Your task to perform on an android device: Add macbook pro 13 inch to the cart on ebay.com, then select checkout. Image 0: 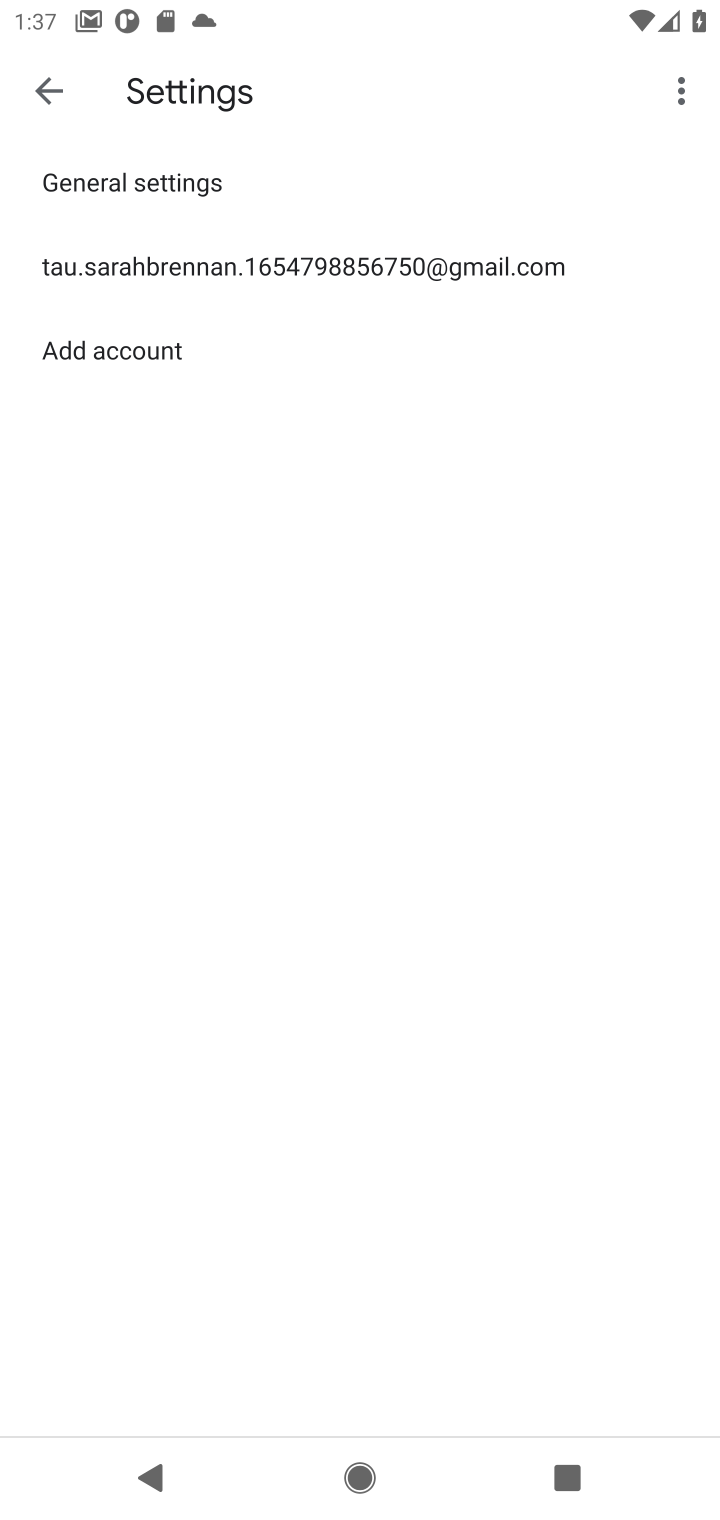
Step 0: press home button
Your task to perform on an android device: Add macbook pro 13 inch to the cart on ebay.com, then select checkout. Image 1: 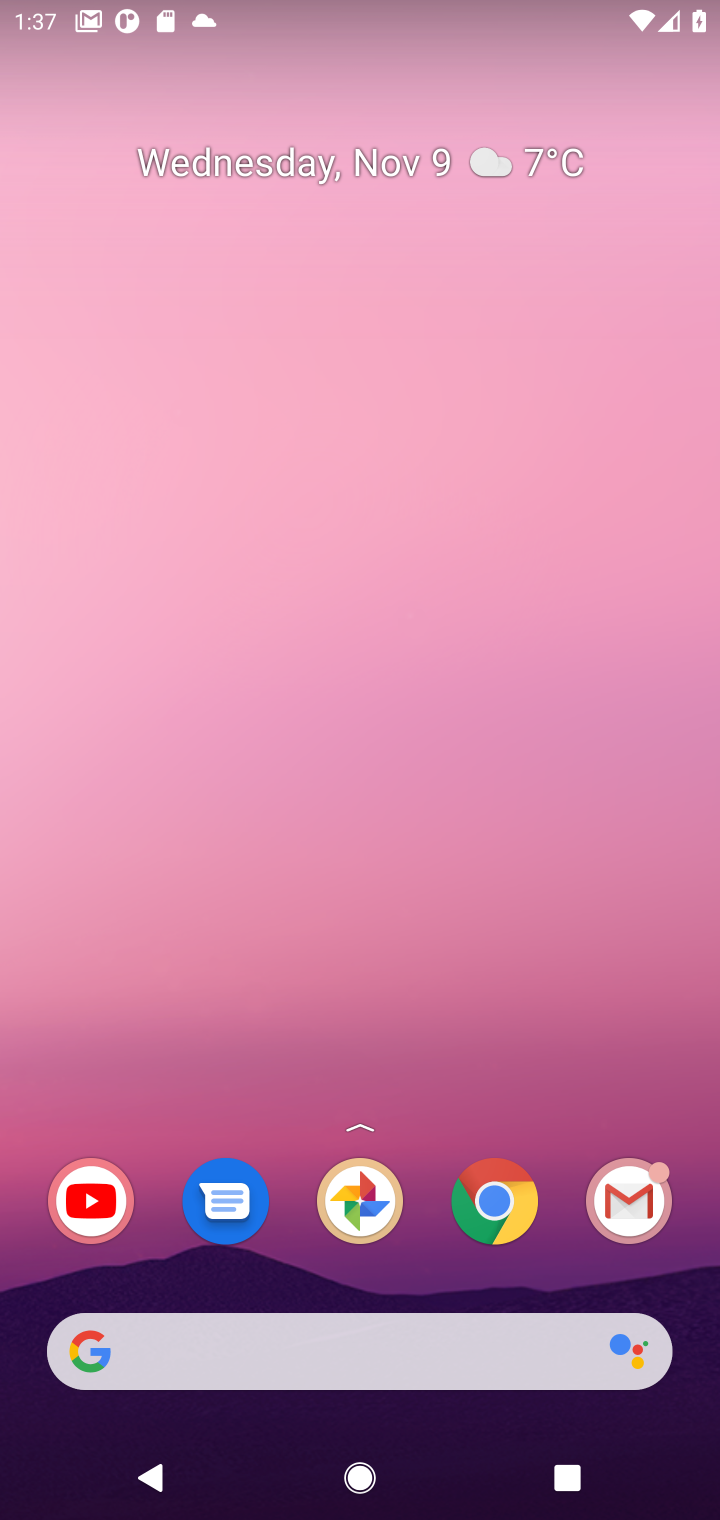
Step 1: click (282, 1338)
Your task to perform on an android device: Add macbook pro 13 inch to the cart on ebay.com, then select checkout. Image 2: 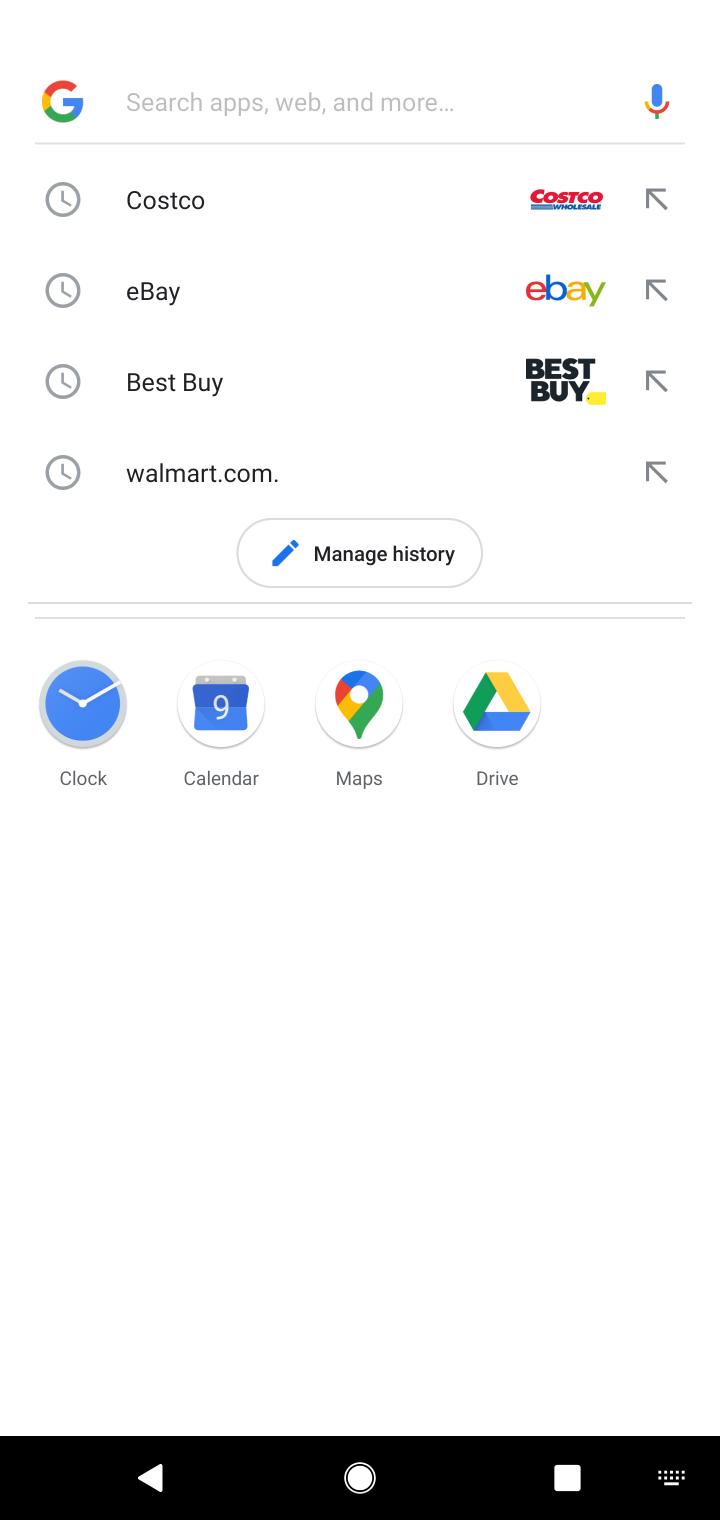
Step 2: click (310, 314)
Your task to perform on an android device: Add macbook pro 13 inch to the cart on ebay.com, then select checkout. Image 3: 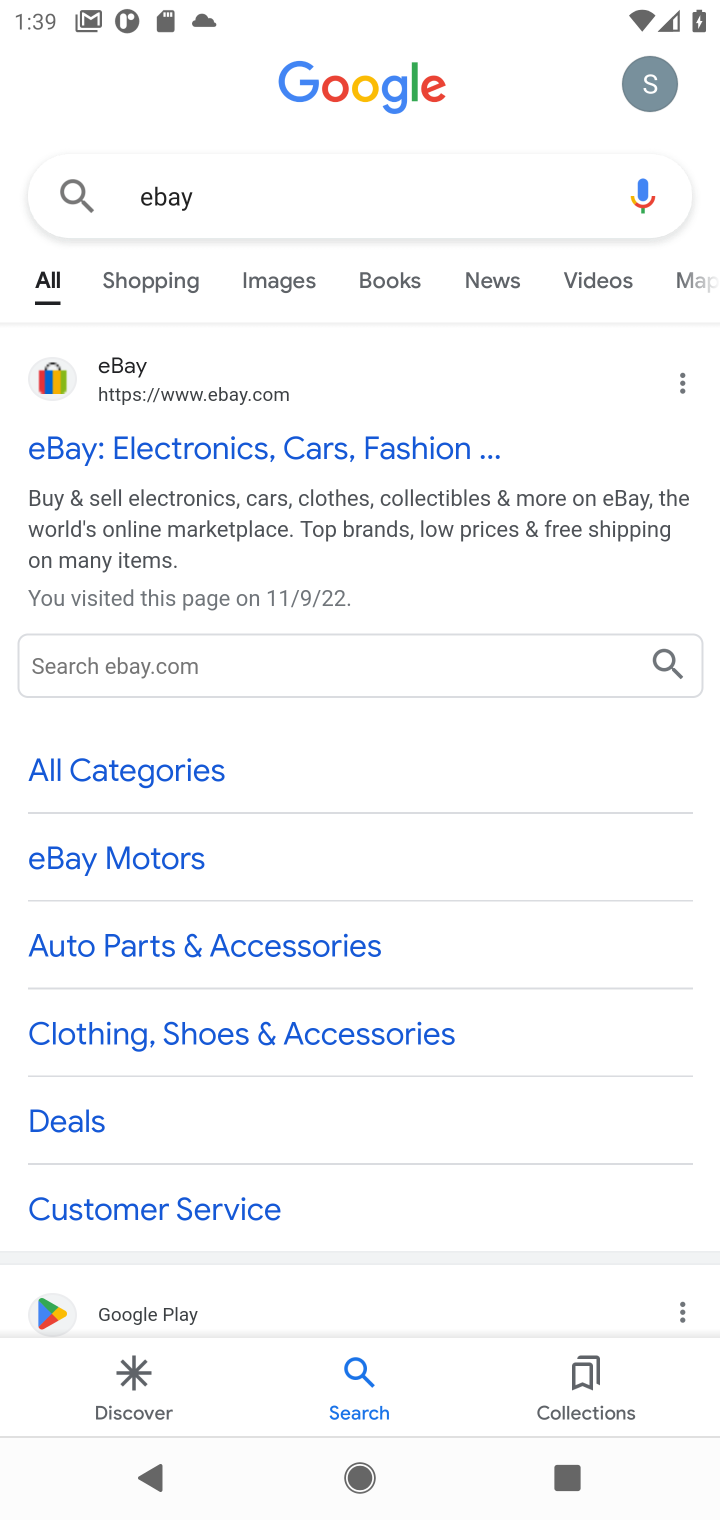
Step 3: click (110, 383)
Your task to perform on an android device: Add macbook pro 13 inch to the cart on ebay.com, then select checkout. Image 4: 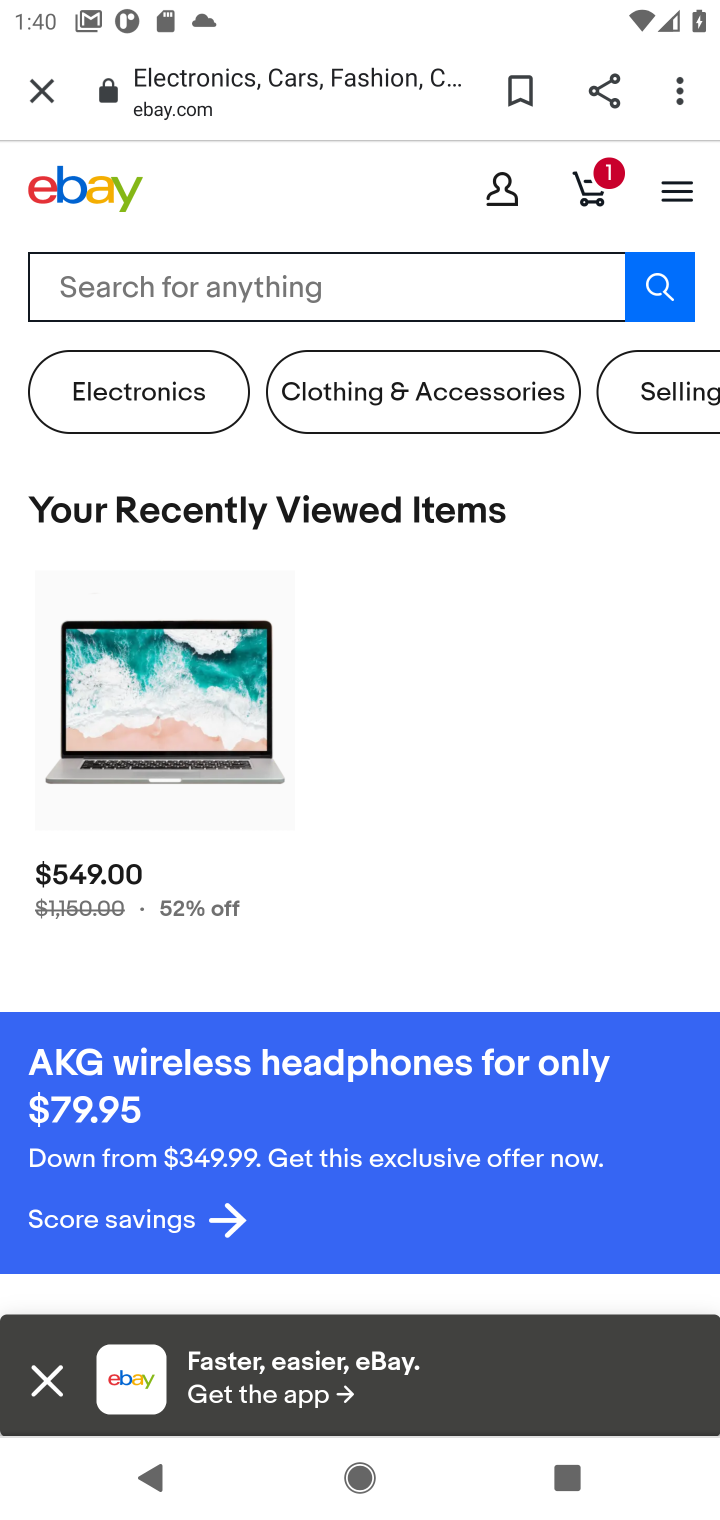
Step 4: click (208, 290)
Your task to perform on an android device: Add macbook pro 13 inch to the cart on ebay.com, then select checkout. Image 5: 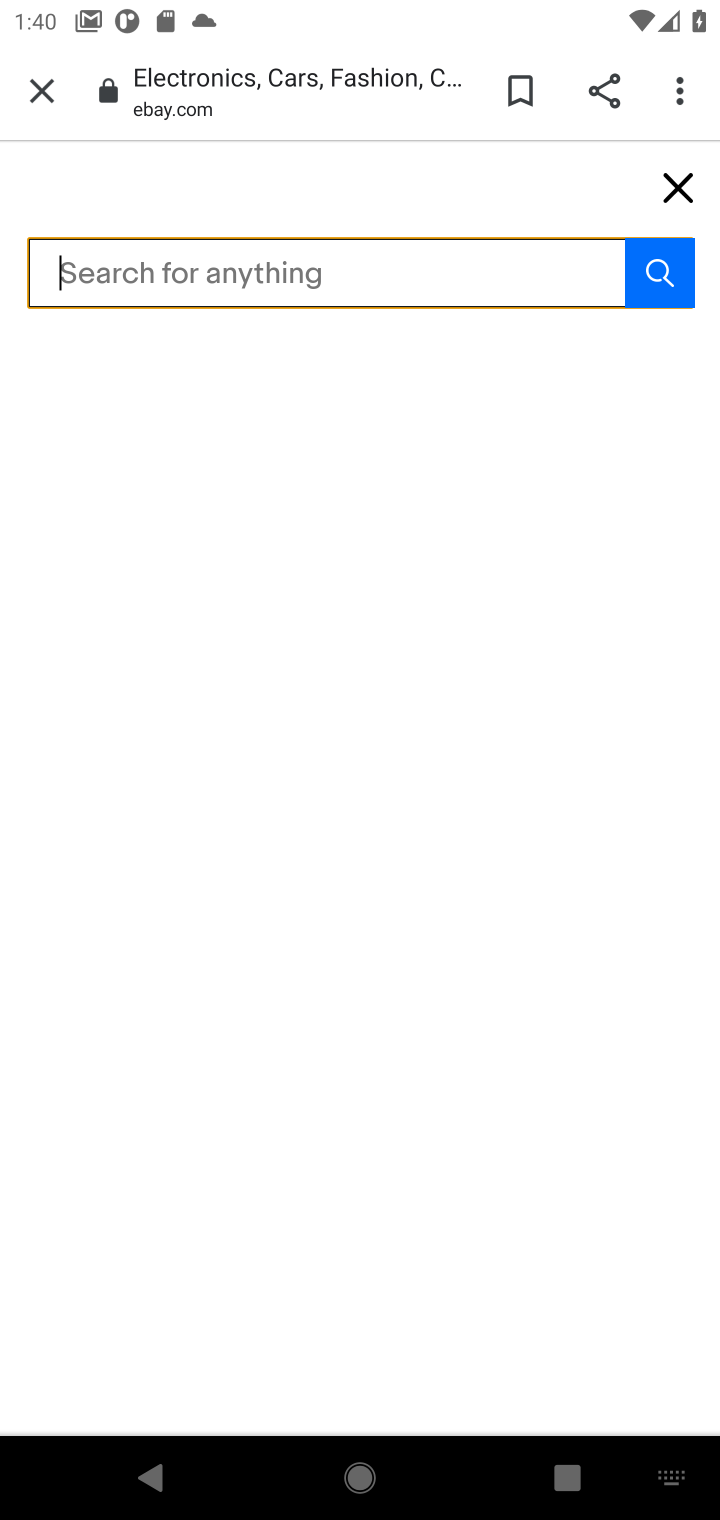
Step 5: type "macbook pro 13 inch"
Your task to perform on an android device: Add macbook pro 13 inch to the cart on ebay.com, then select checkout. Image 6: 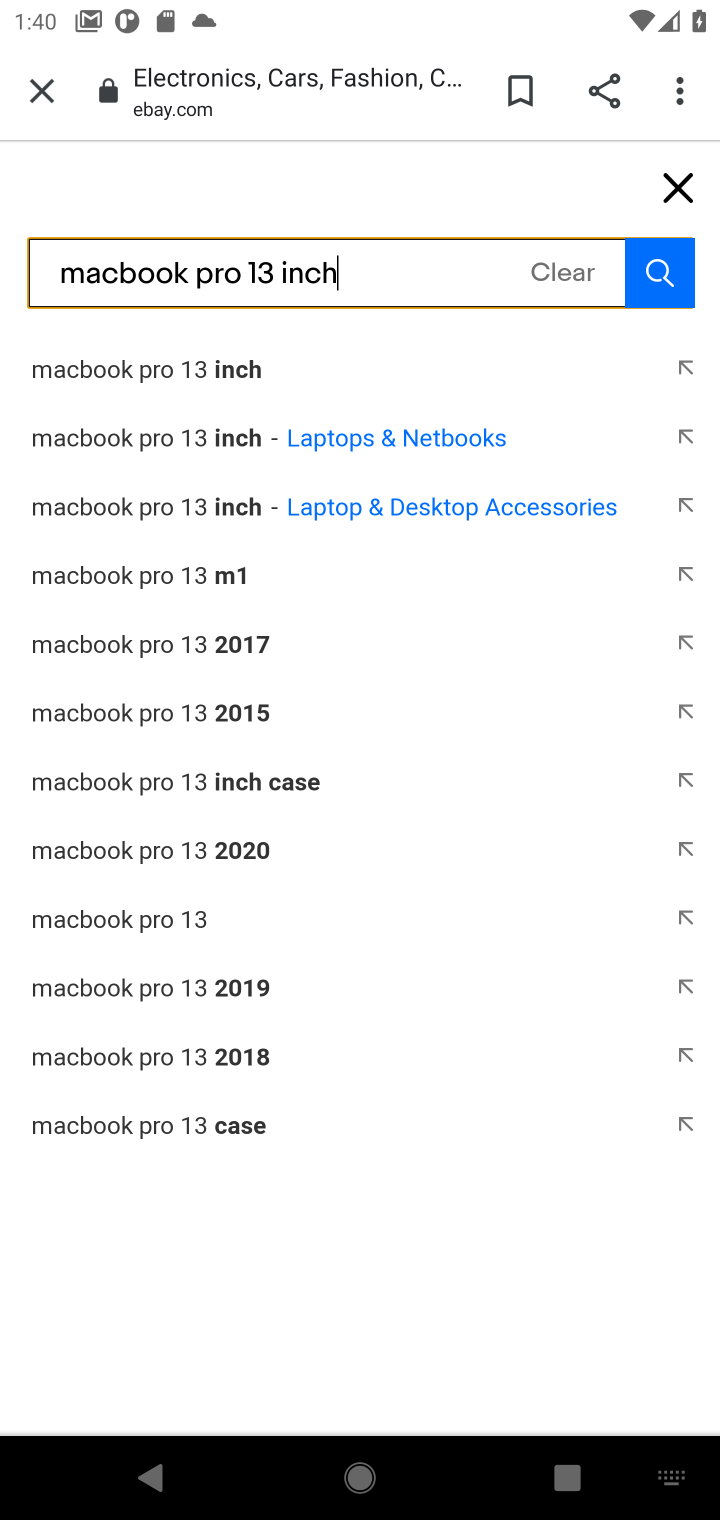
Step 6: click (191, 438)
Your task to perform on an android device: Add macbook pro 13 inch to the cart on ebay.com, then select checkout. Image 7: 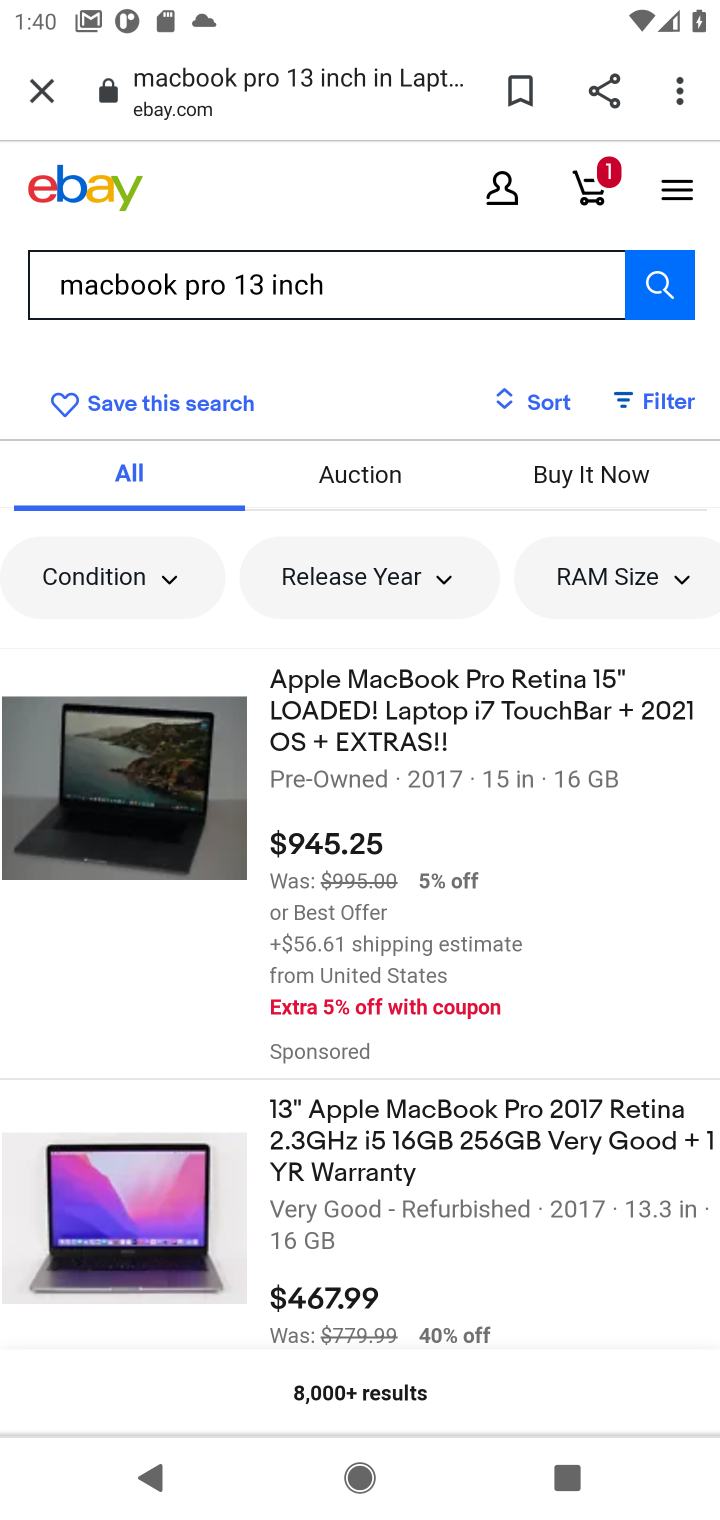
Step 7: click (243, 740)
Your task to perform on an android device: Add macbook pro 13 inch to the cart on ebay.com, then select checkout. Image 8: 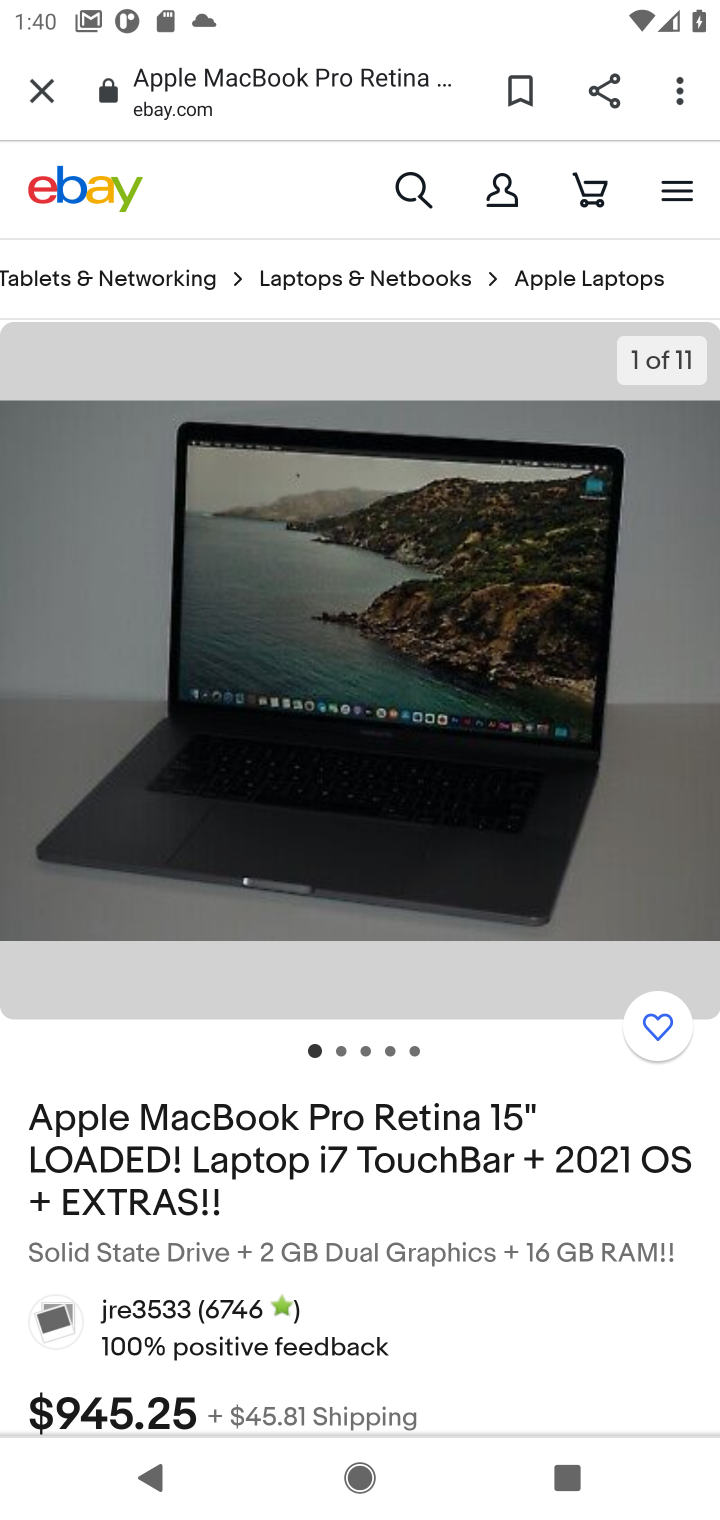
Step 8: click (381, 976)
Your task to perform on an android device: Add macbook pro 13 inch to the cart on ebay.com, then select checkout. Image 9: 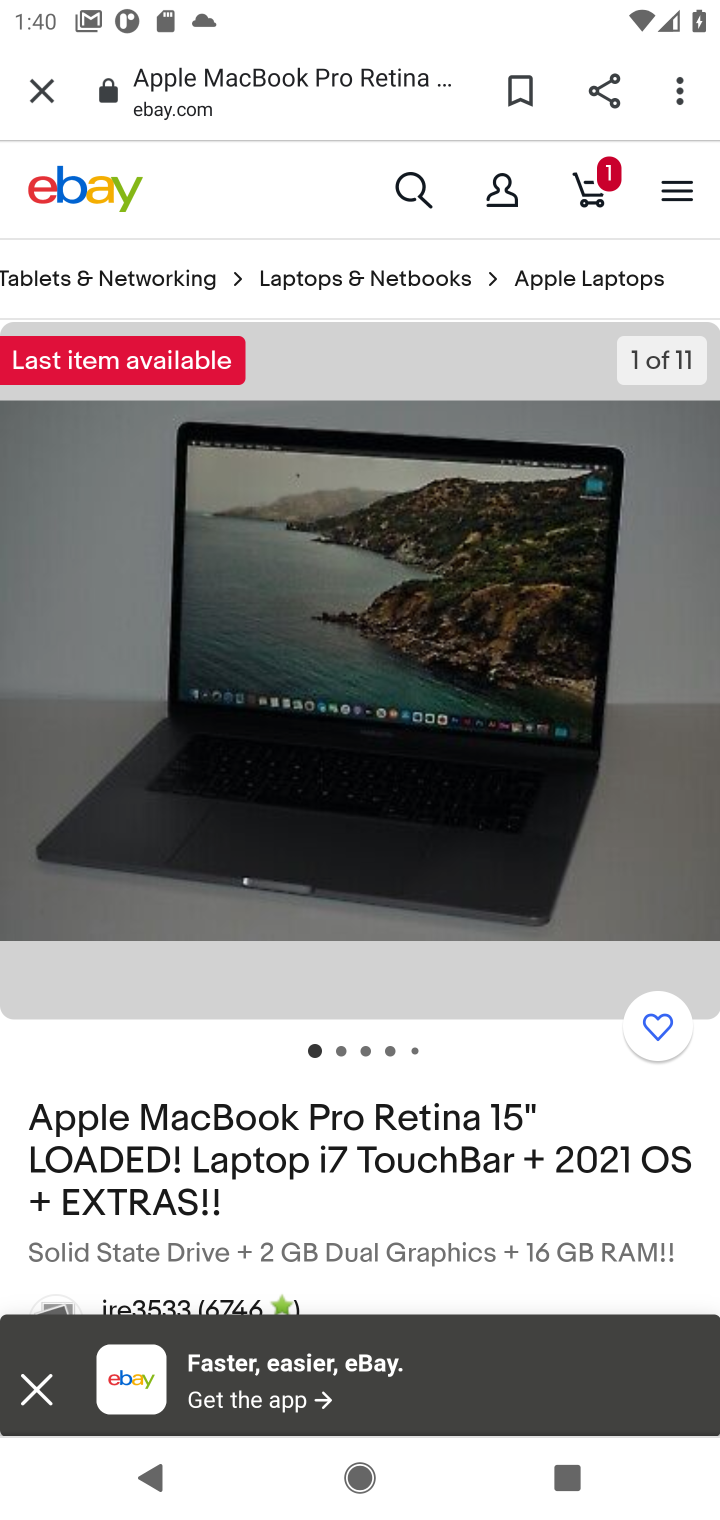
Step 9: drag from (362, 1200) to (391, 871)
Your task to perform on an android device: Add macbook pro 13 inch to the cart on ebay.com, then select checkout. Image 10: 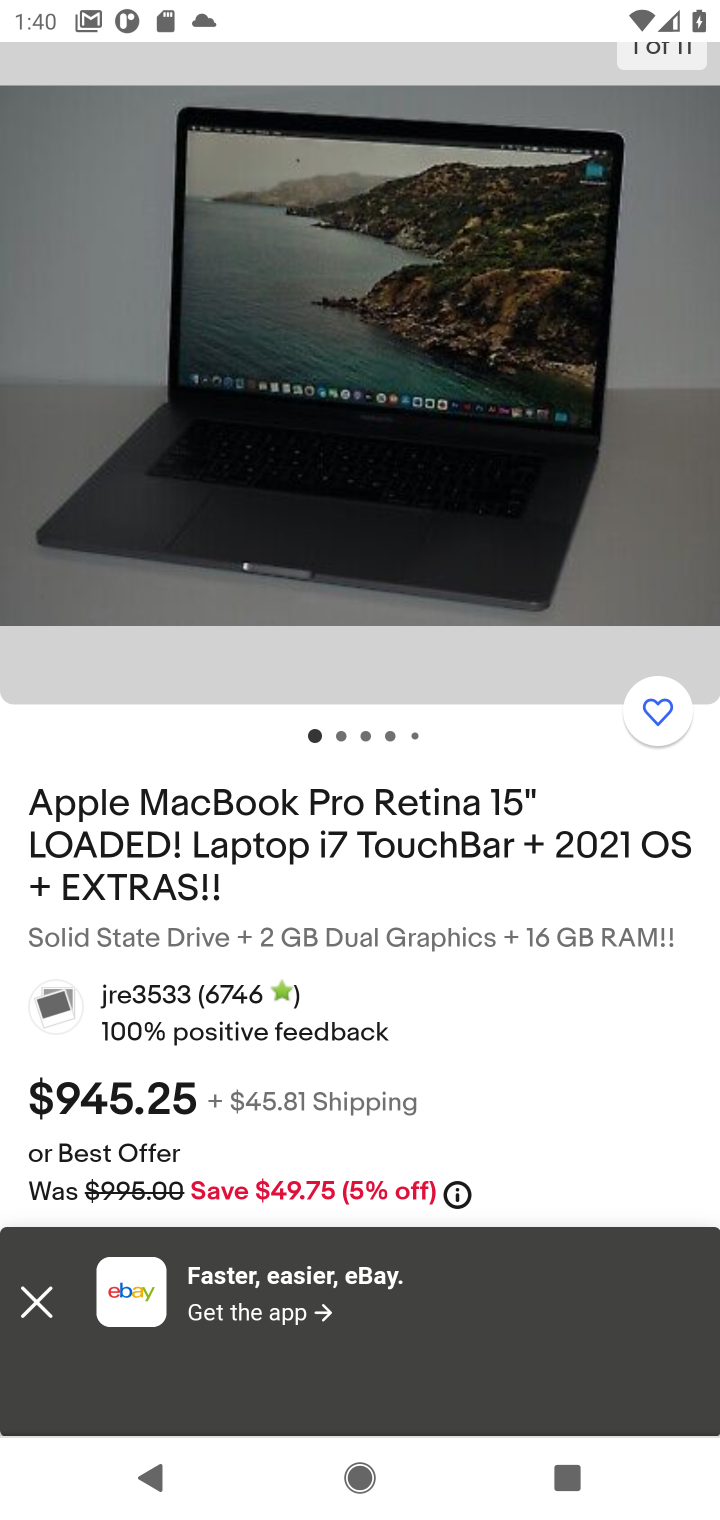
Step 10: click (462, 918)
Your task to perform on an android device: Add macbook pro 13 inch to the cart on ebay.com, then select checkout. Image 11: 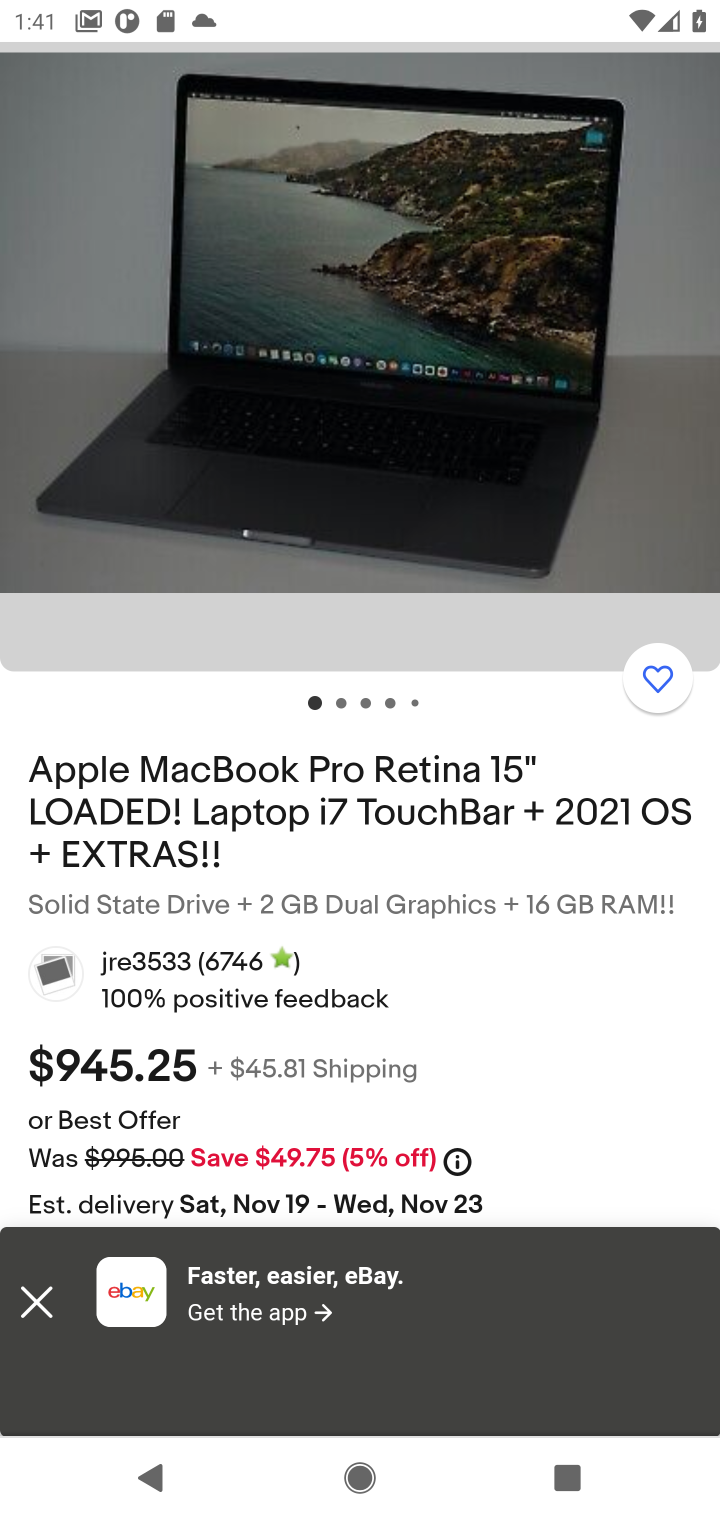
Step 11: drag from (320, 748) to (350, 651)
Your task to perform on an android device: Add macbook pro 13 inch to the cart on ebay.com, then select checkout. Image 12: 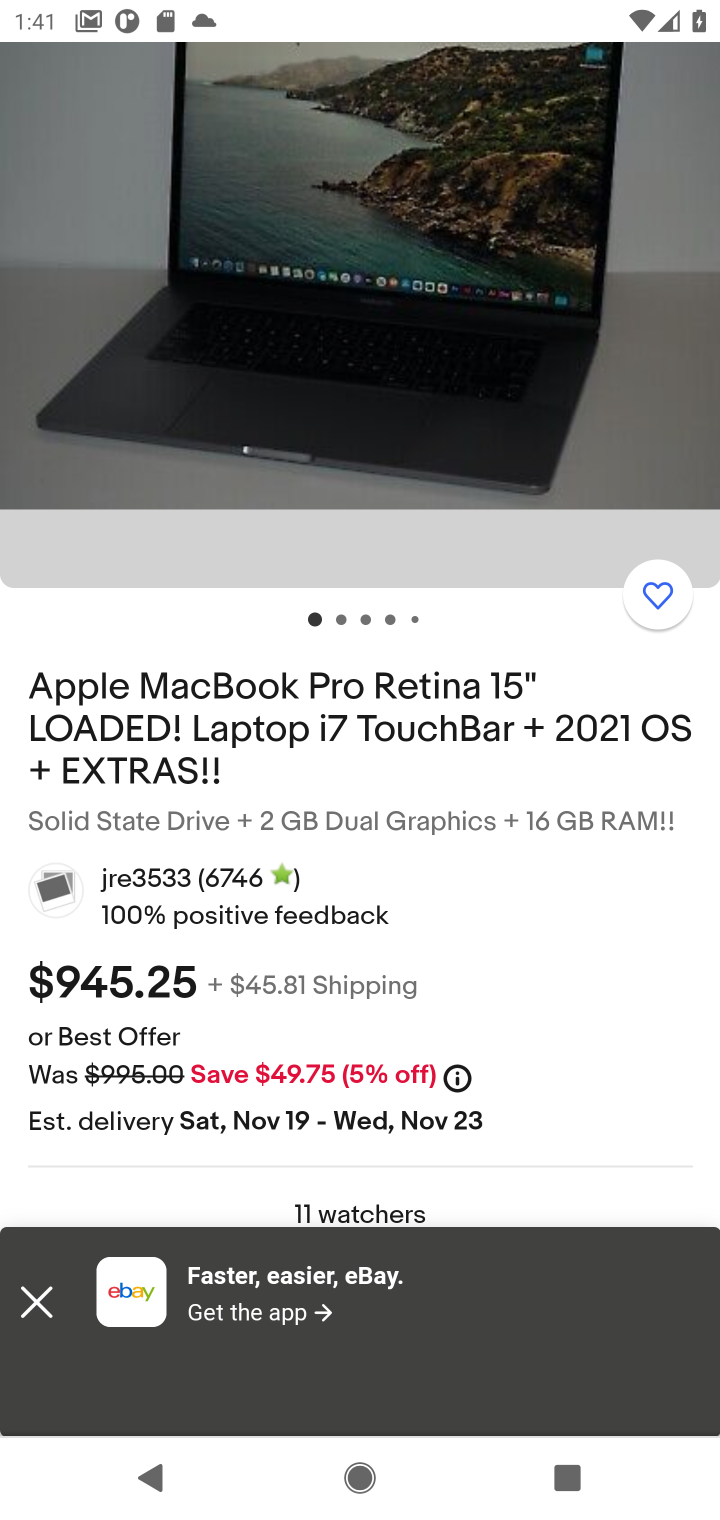
Step 12: drag from (452, 1010) to (450, 711)
Your task to perform on an android device: Add macbook pro 13 inch to the cart on ebay.com, then select checkout. Image 13: 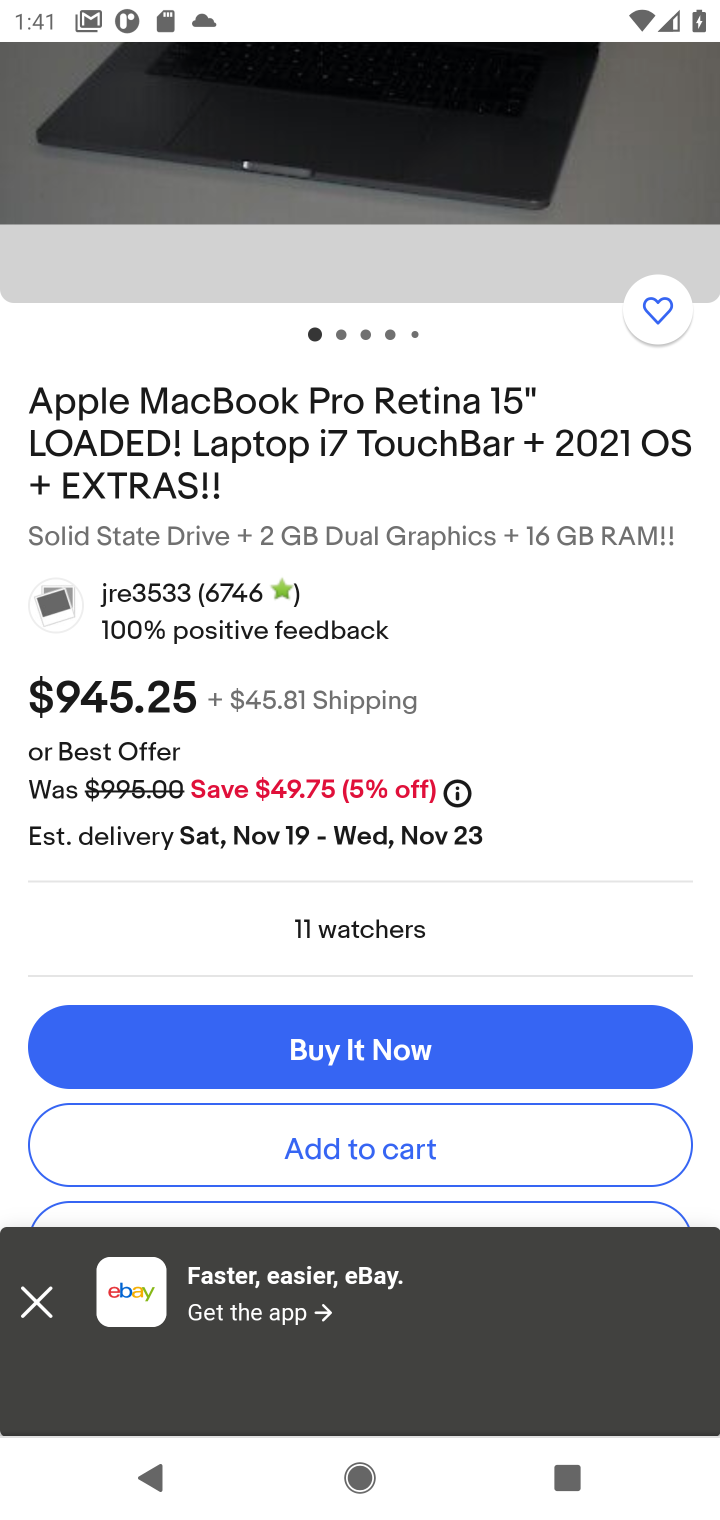
Step 13: drag from (455, 910) to (453, 779)
Your task to perform on an android device: Add macbook pro 13 inch to the cart on ebay.com, then select checkout. Image 14: 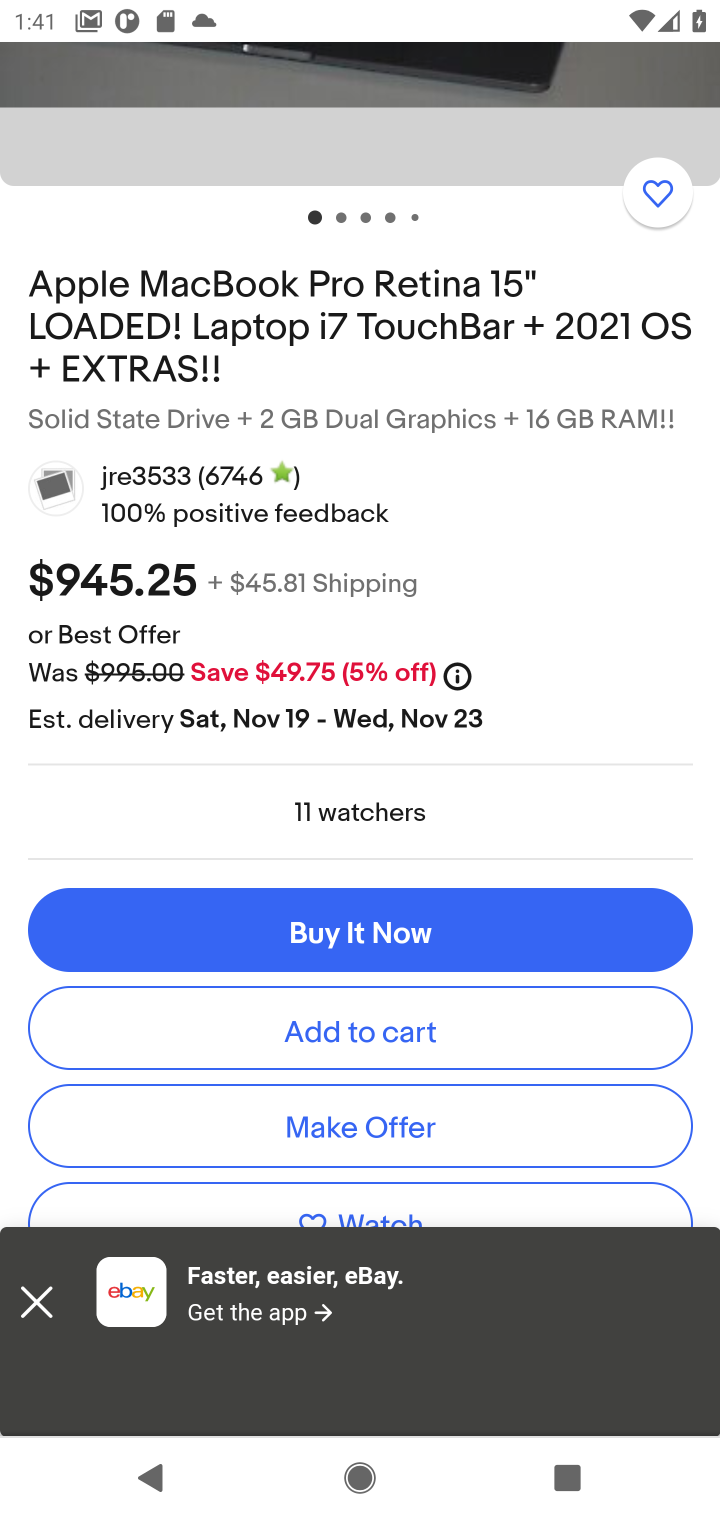
Step 14: click (355, 1018)
Your task to perform on an android device: Add macbook pro 13 inch to the cart on ebay.com, then select checkout. Image 15: 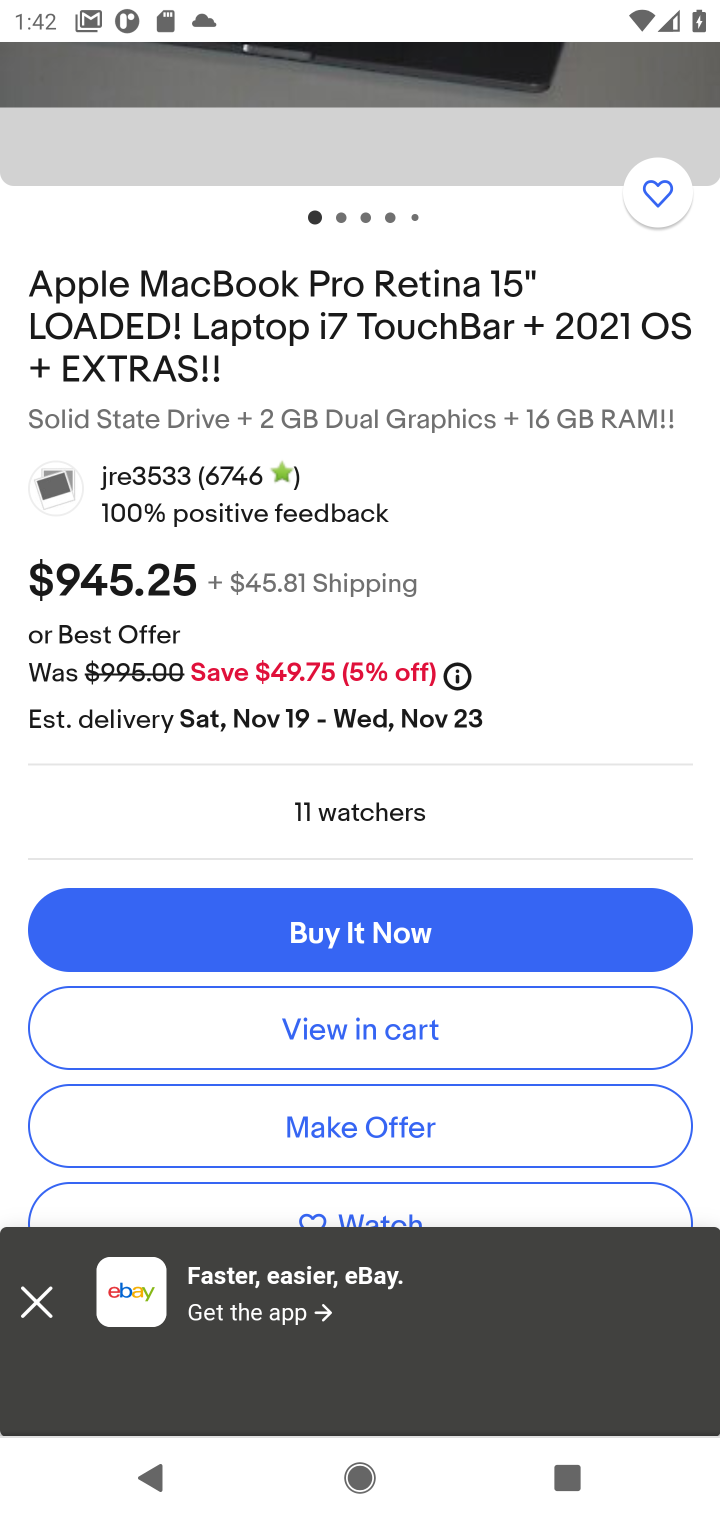
Step 15: click (370, 1020)
Your task to perform on an android device: Add macbook pro 13 inch to the cart on ebay.com, then select checkout. Image 16: 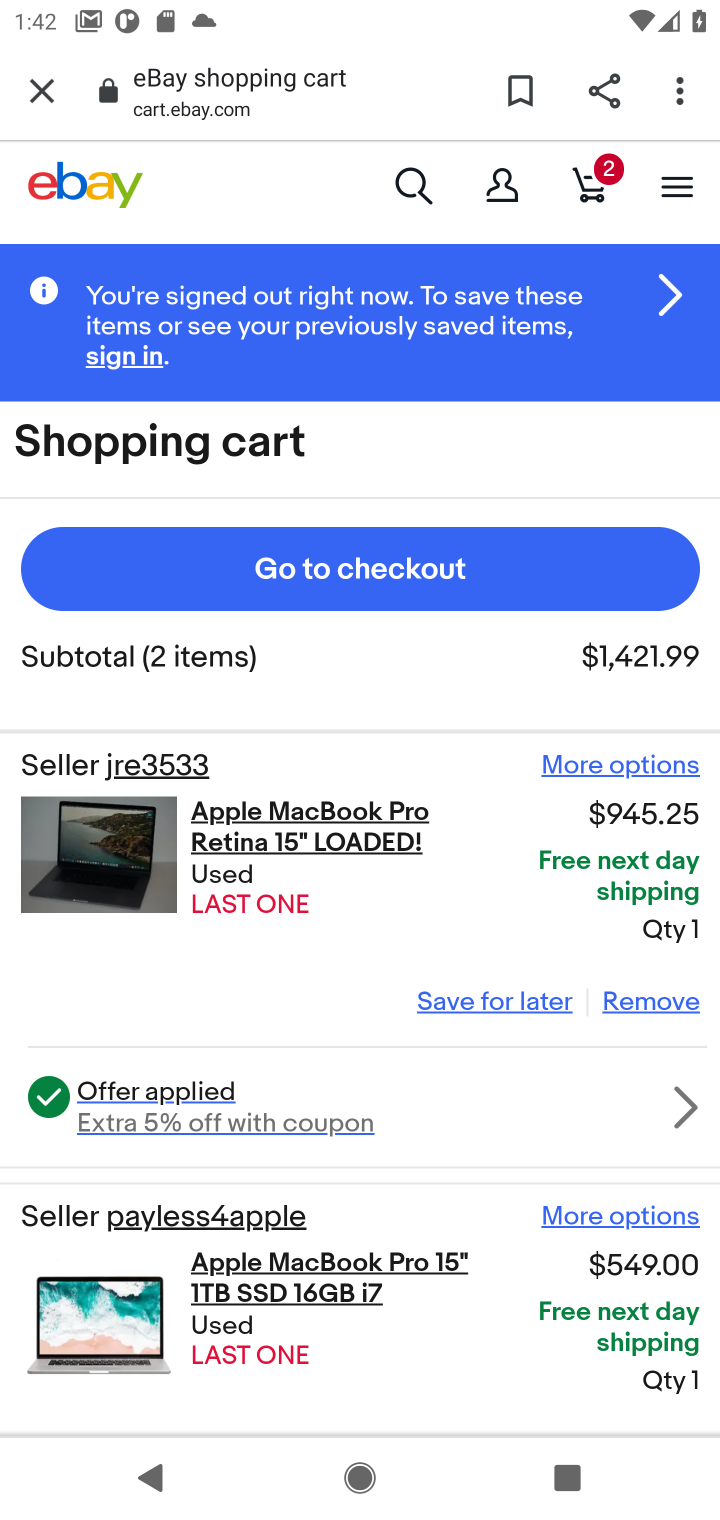
Step 16: click (345, 569)
Your task to perform on an android device: Add macbook pro 13 inch to the cart on ebay.com, then select checkout. Image 17: 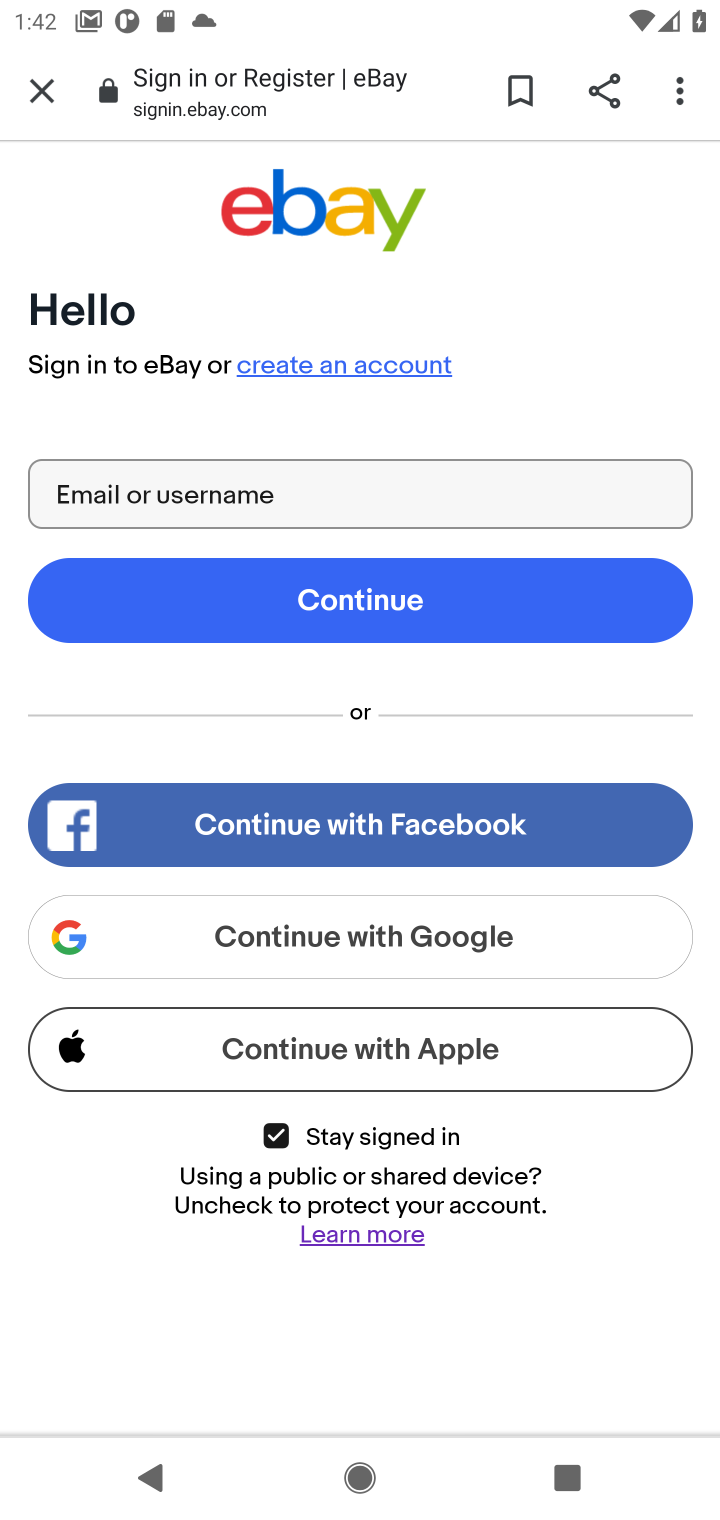
Step 17: task complete